Your task to perform on an android device: check android version Image 0: 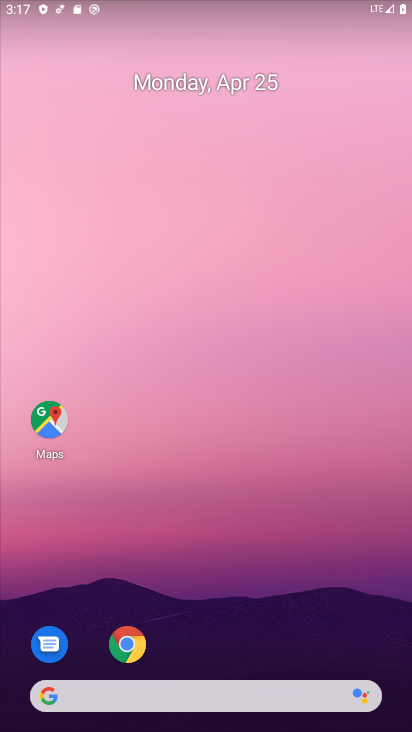
Step 0: drag from (237, 632) to (247, 84)
Your task to perform on an android device: check android version Image 1: 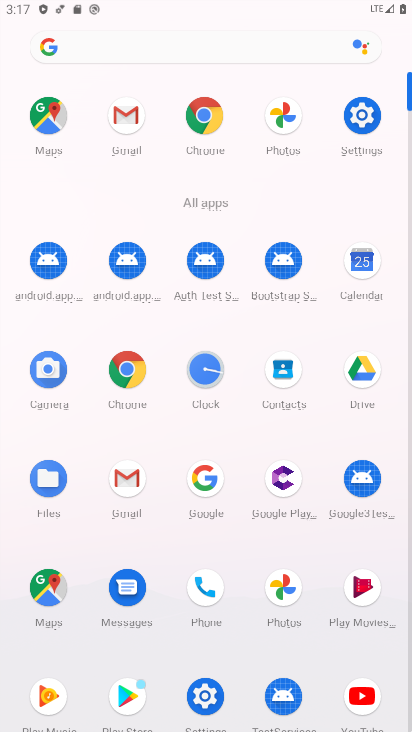
Step 1: click (361, 113)
Your task to perform on an android device: check android version Image 2: 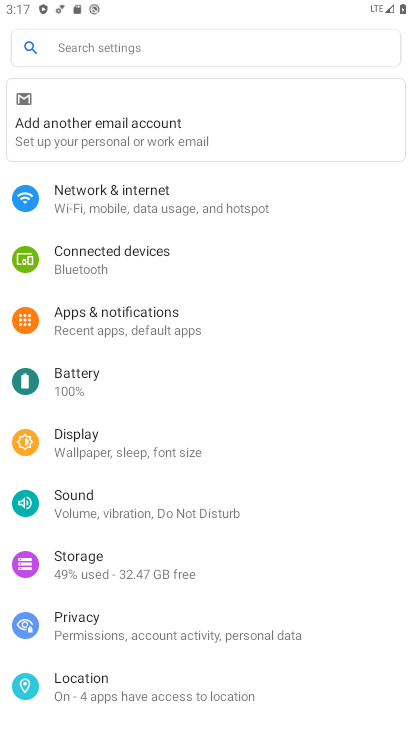
Step 2: task complete